Your task to perform on an android device: move a message to another label in the gmail app Image 0: 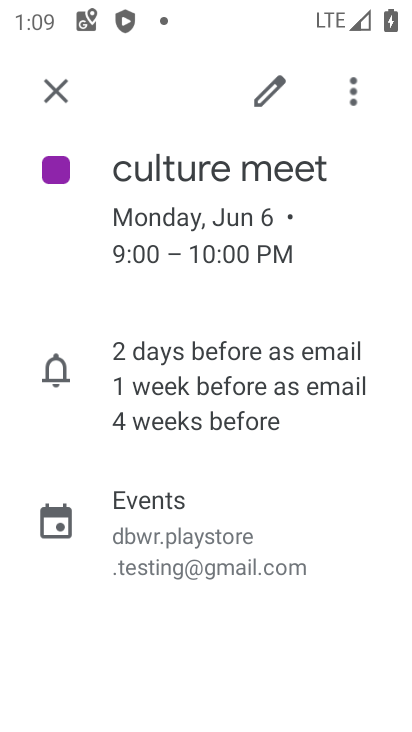
Step 0: press home button
Your task to perform on an android device: move a message to another label in the gmail app Image 1: 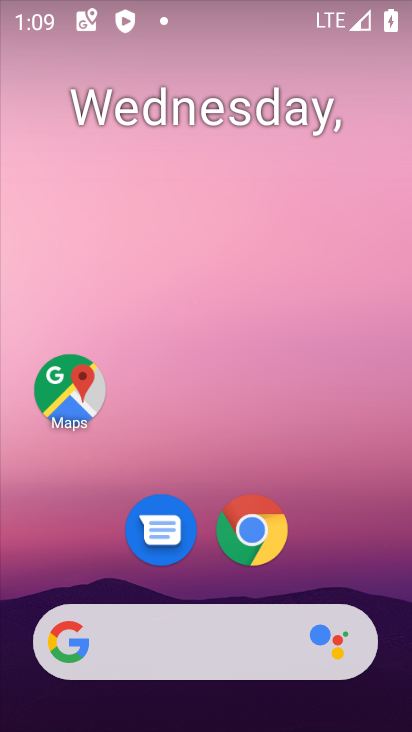
Step 1: drag from (396, 545) to (340, 175)
Your task to perform on an android device: move a message to another label in the gmail app Image 2: 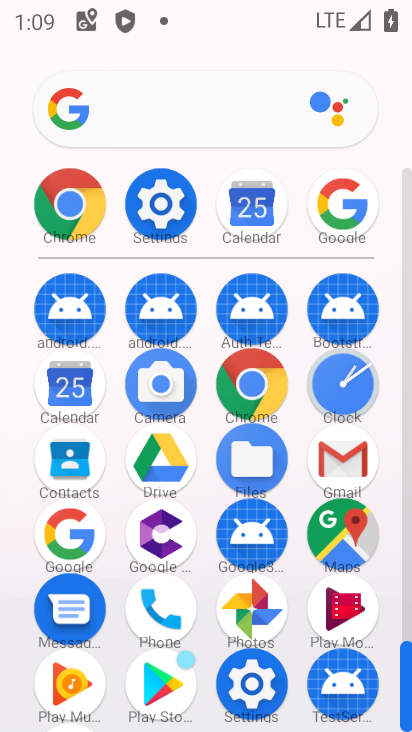
Step 2: click (372, 452)
Your task to perform on an android device: move a message to another label in the gmail app Image 3: 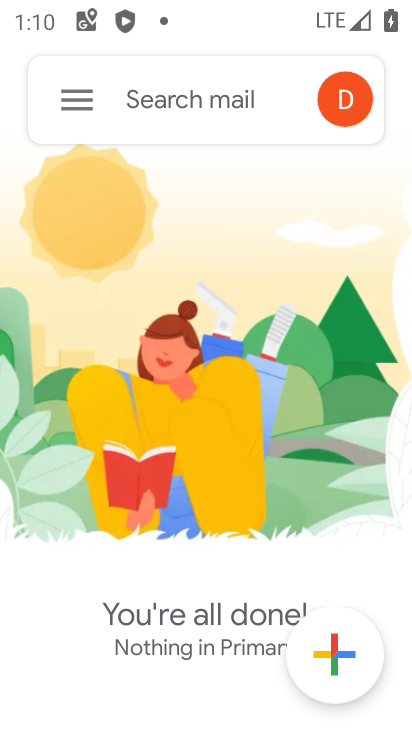
Step 3: click (70, 108)
Your task to perform on an android device: move a message to another label in the gmail app Image 4: 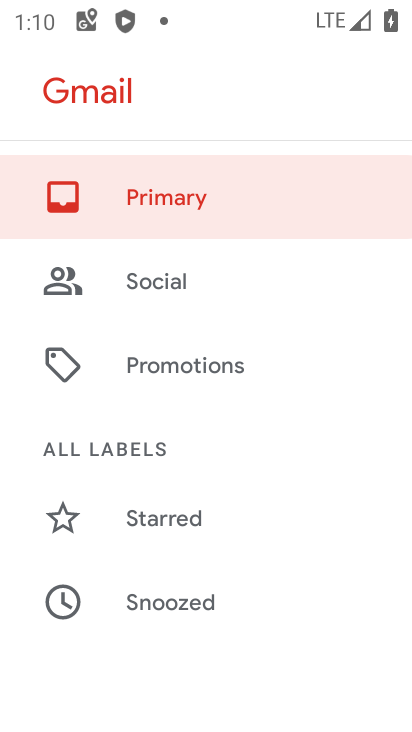
Step 4: drag from (281, 568) to (281, 214)
Your task to perform on an android device: move a message to another label in the gmail app Image 5: 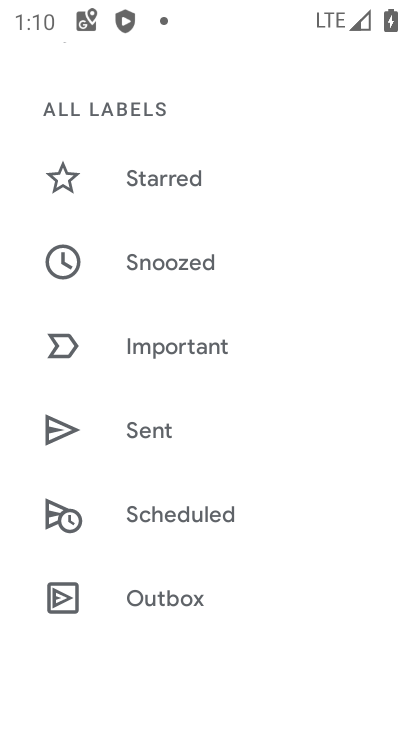
Step 5: drag from (284, 478) to (288, 154)
Your task to perform on an android device: move a message to another label in the gmail app Image 6: 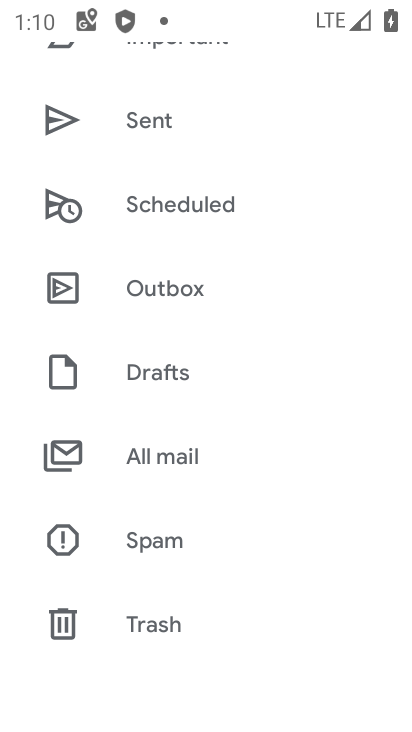
Step 6: drag from (277, 460) to (296, 107)
Your task to perform on an android device: move a message to another label in the gmail app Image 7: 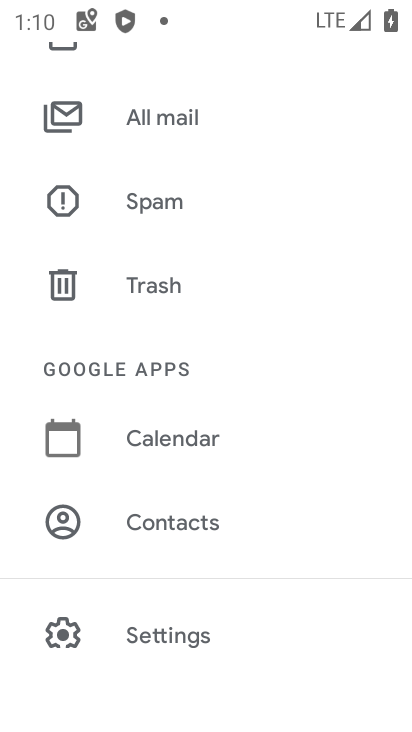
Step 7: drag from (287, 404) to (298, 110)
Your task to perform on an android device: move a message to another label in the gmail app Image 8: 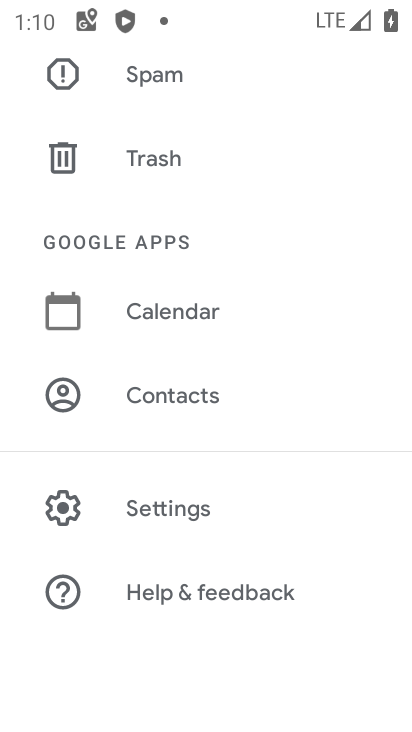
Step 8: drag from (186, 119) to (221, 415)
Your task to perform on an android device: move a message to another label in the gmail app Image 9: 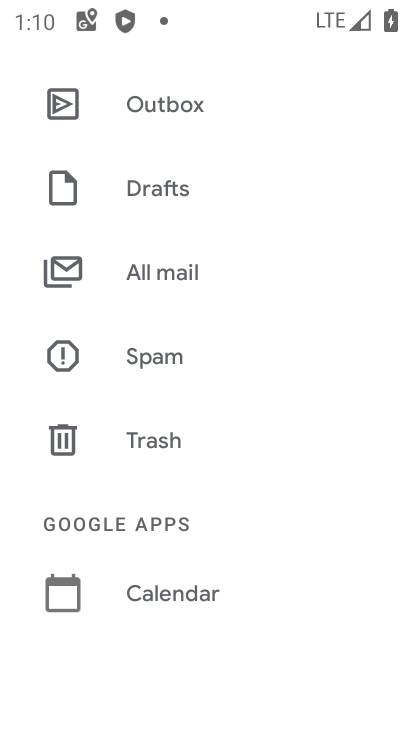
Step 9: click (197, 282)
Your task to perform on an android device: move a message to another label in the gmail app Image 10: 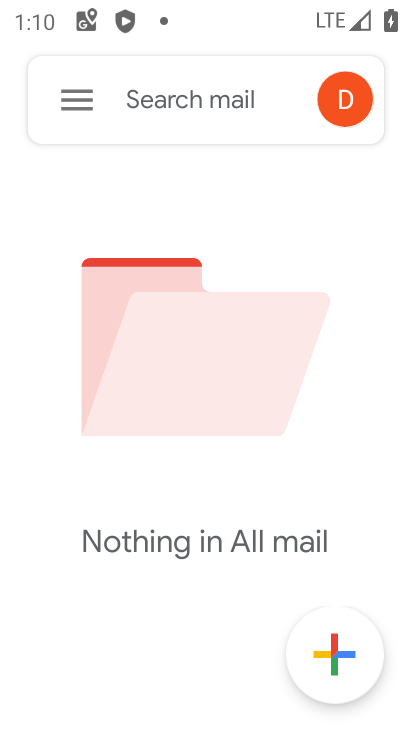
Step 10: task complete